Your task to perform on an android device: uninstall "Fetch Rewards" Image 0: 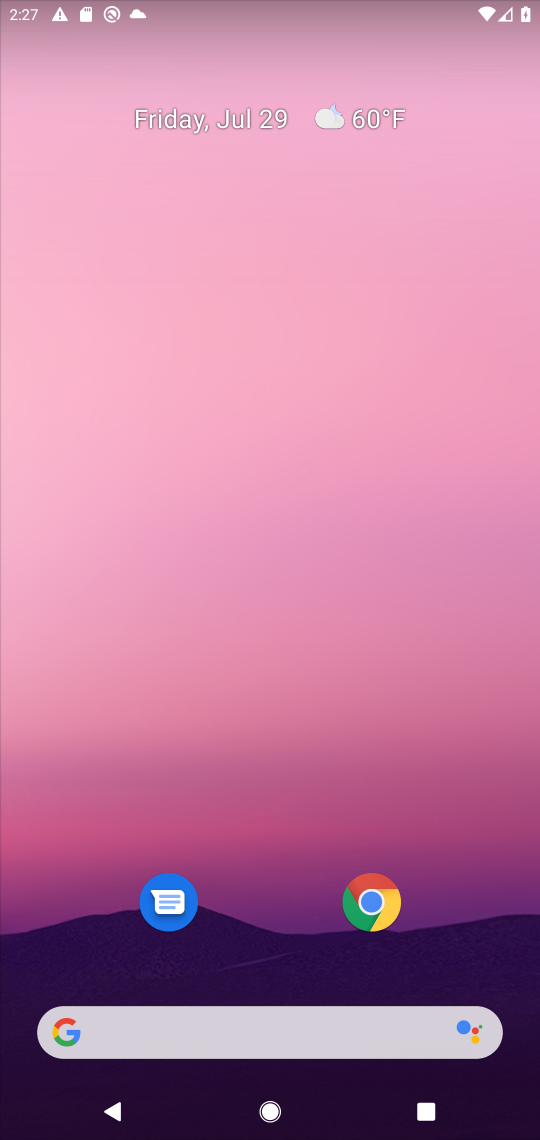
Step 0: drag from (221, 990) to (176, 306)
Your task to perform on an android device: uninstall "Fetch Rewards" Image 1: 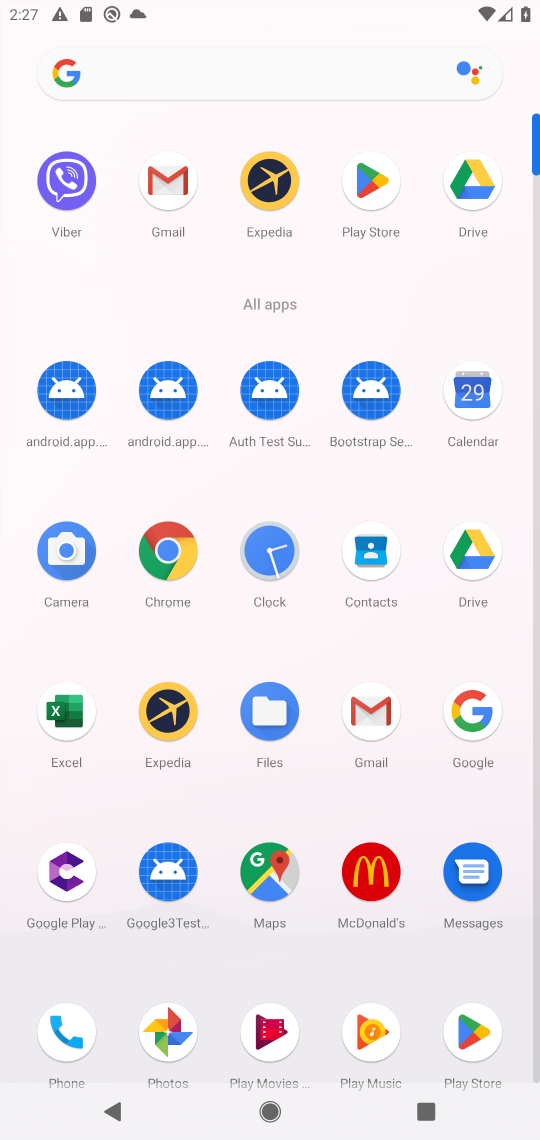
Step 1: click (383, 185)
Your task to perform on an android device: uninstall "Fetch Rewards" Image 2: 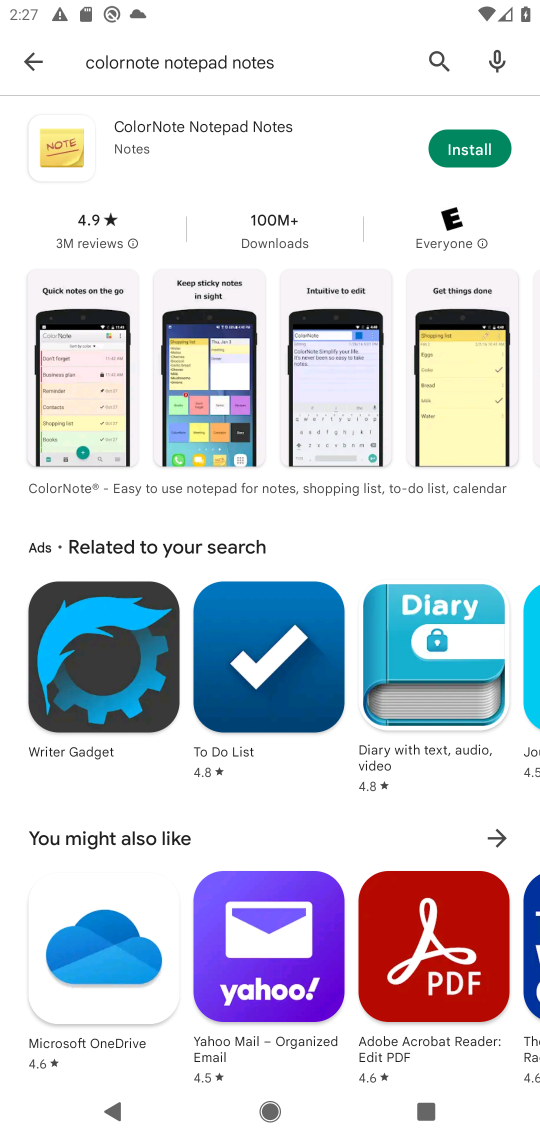
Step 2: click (33, 78)
Your task to perform on an android device: uninstall "Fetch Rewards" Image 3: 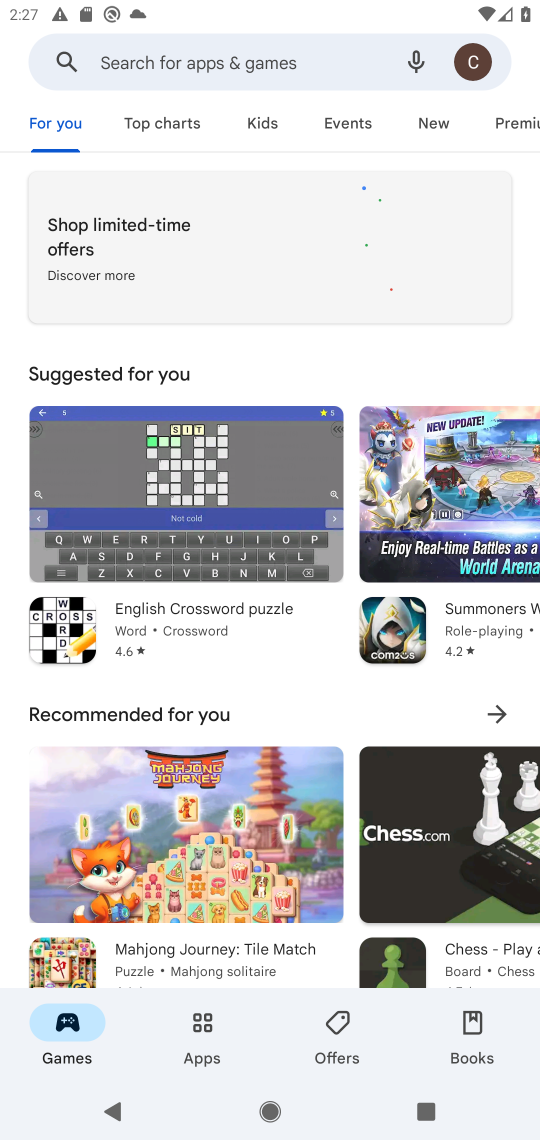
Step 3: type "Fetch Rewards"
Your task to perform on an android device: uninstall "Fetch Rewards" Image 4: 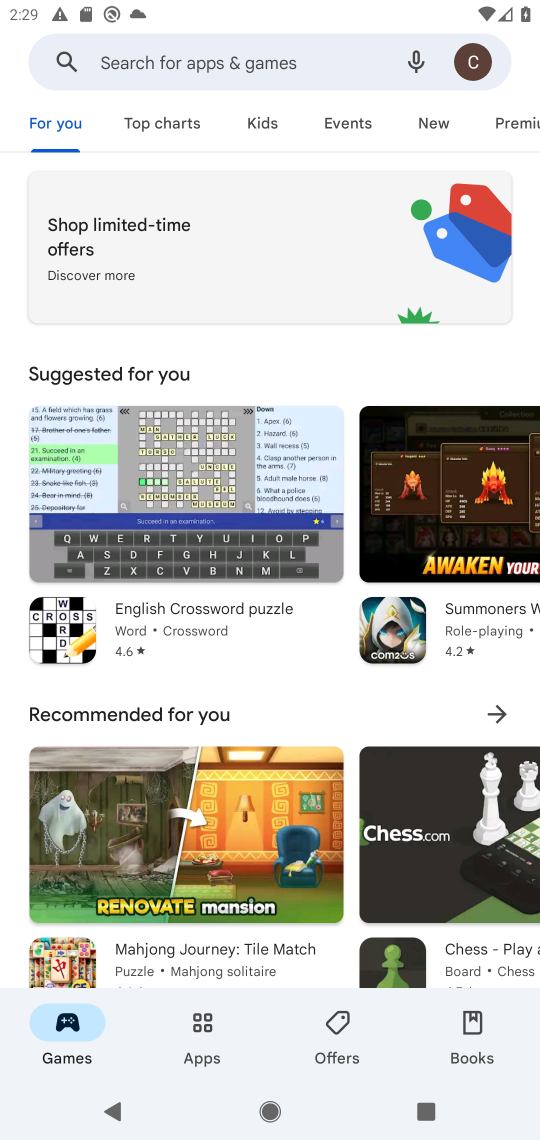
Step 4: click (257, 59)
Your task to perform on an android device: uninstall "Fetch Rewards" Image 5: 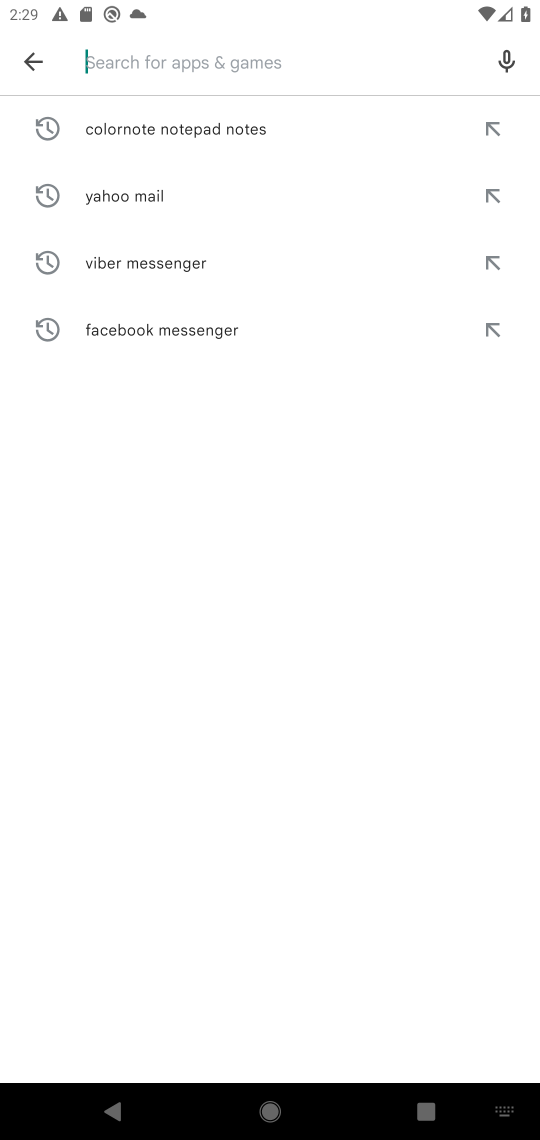
Step 5: type "Fetch Rewards"
Your task to perform on an android device: uninstall "Fetch Rewards" Image 6: 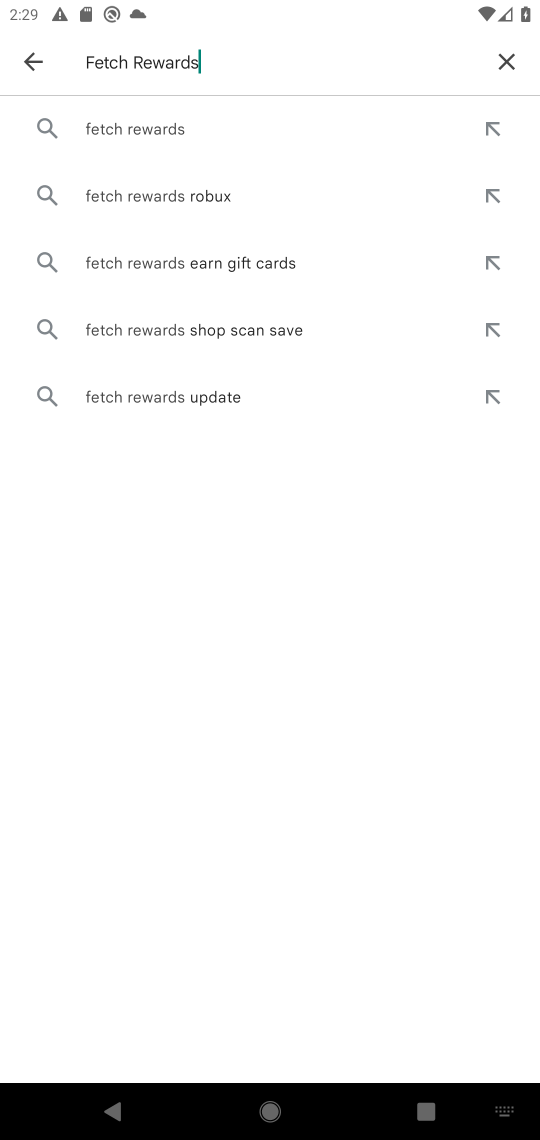
Step 6: click (169, 122)
Your task to perform on an android device: uninstall "Fetch Rewards" Image 7: 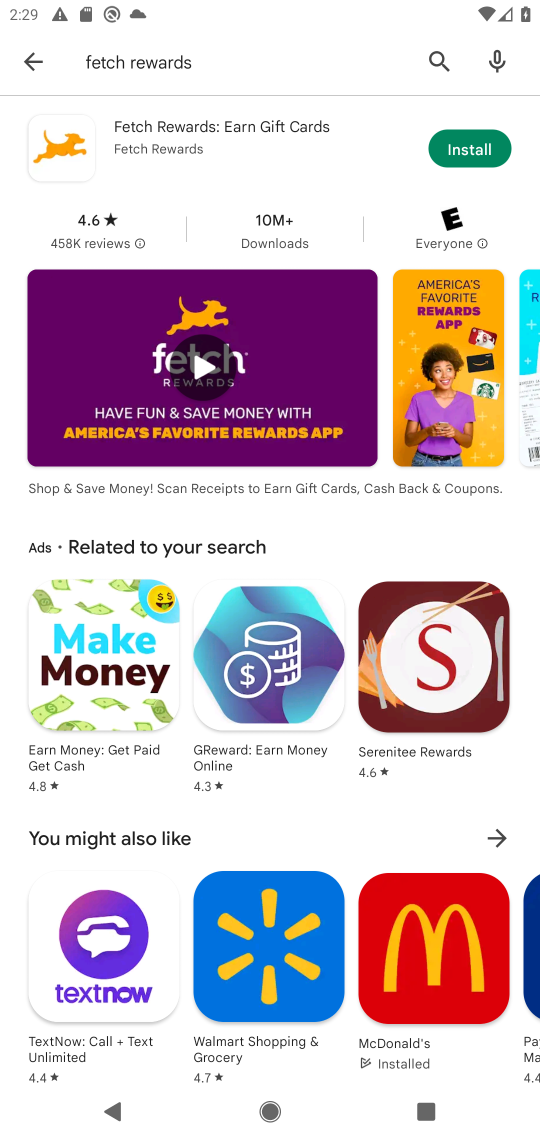
Step 7: task complete